Your task to perform on an android device: Is it going to rain tomorrow? Image 0: 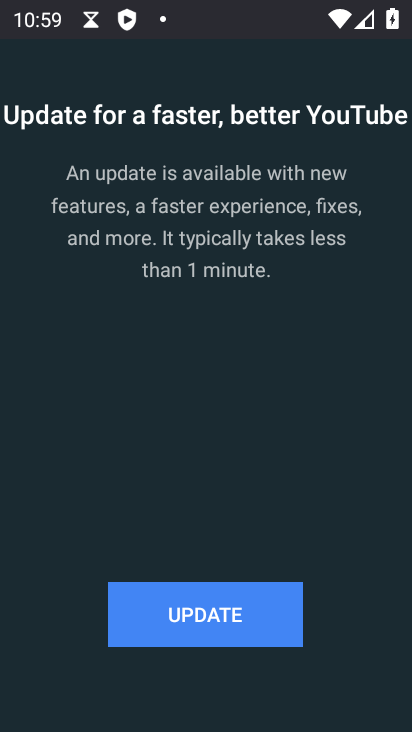
Step 0: press home button
Your task to perform on an android device: Is it going to rain tomorrow? Image 1: 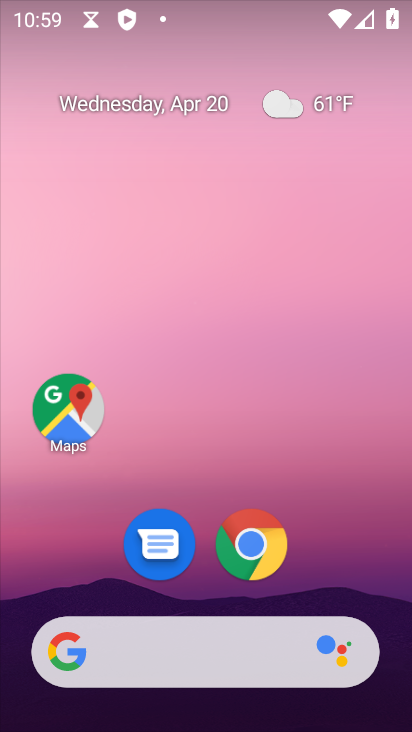
Step 1: click (294, 102)
Your task to perform on an android device: Is it going to rain tomorrow? Image 2: 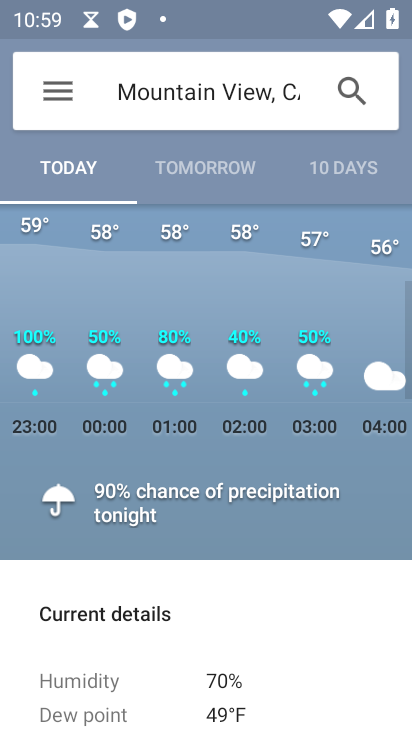
Step 2: click (238, 168)
Your task to perform on an android device: Is it going to rain tomorrow? Image 3: 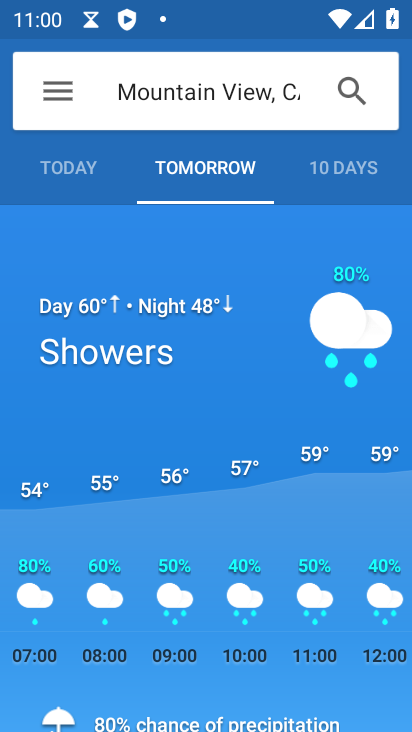
Step 3: task complete